Your task to perform on an android device: Go to ESPN.com Image 0: 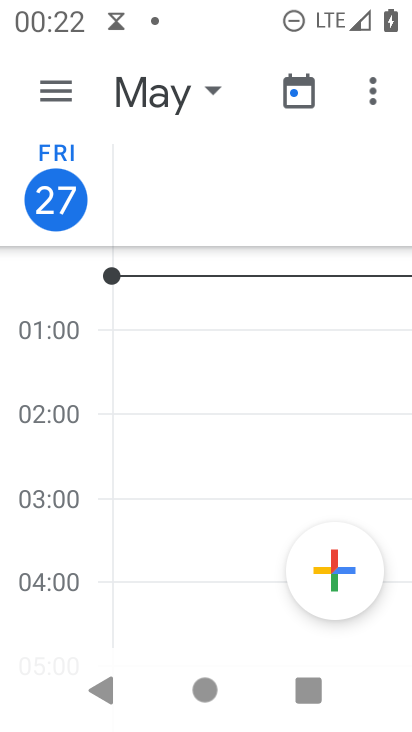
Step 0: press home button
Your task to perform on an android device: Go to ESPN.com Image 1: 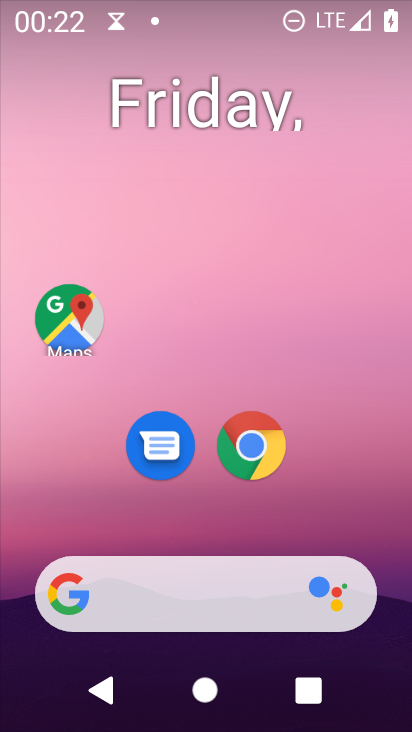
Step 1: click (253, 438)
Your task to perform on an android device: Go to ESPN.com Image 2: 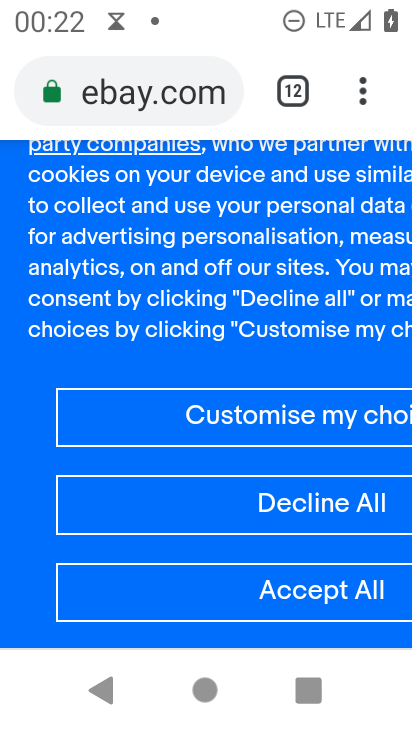
Step 2: click (365, 99)
Your task to perform on an android device: Go to ESPN.com Image 3: 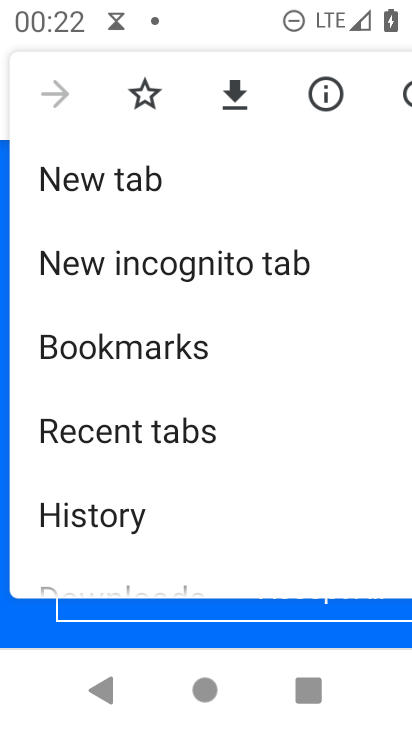
Step 3: click (103, 187)
Your task to perform on an android device: Go to ESPN.com Image 4: 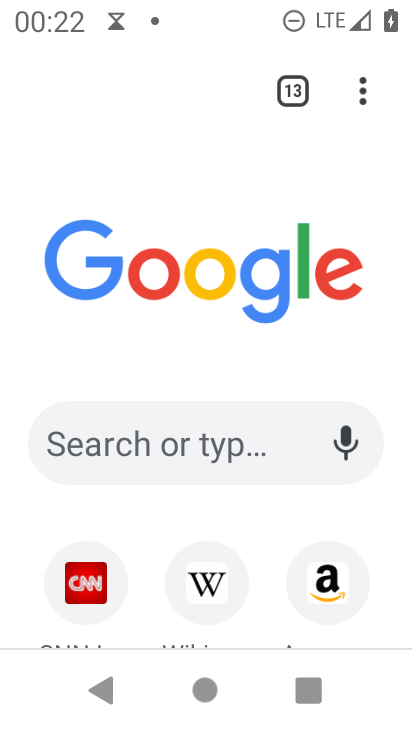
Step 4: drag from (163, 629) to (170, 426)
Your task to perform on an android device: Go to ESPN.com Image 5: 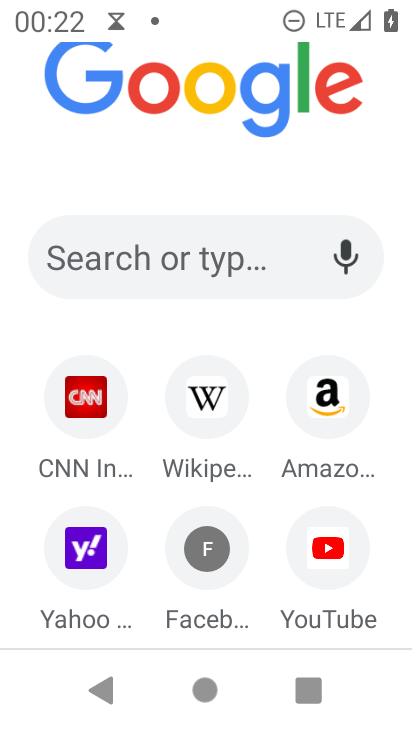
Step 5: click (203, 256)
Your task to perform on an android device: Go to ESPN.com Image 6: 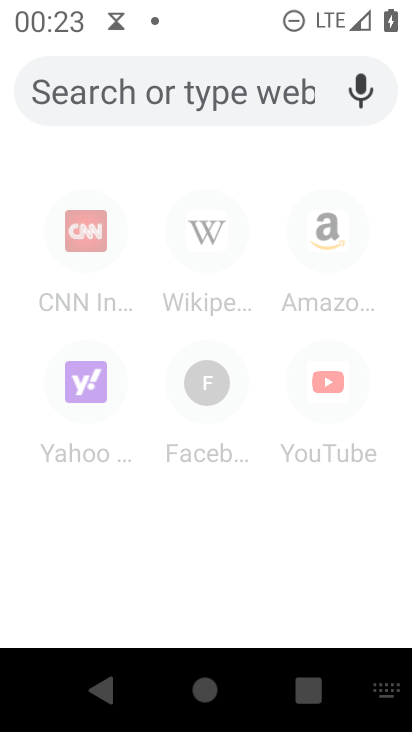
Step 6: type "ESPN.com"
Your task to perform on an android device: Go to ESPN.com Image 7: 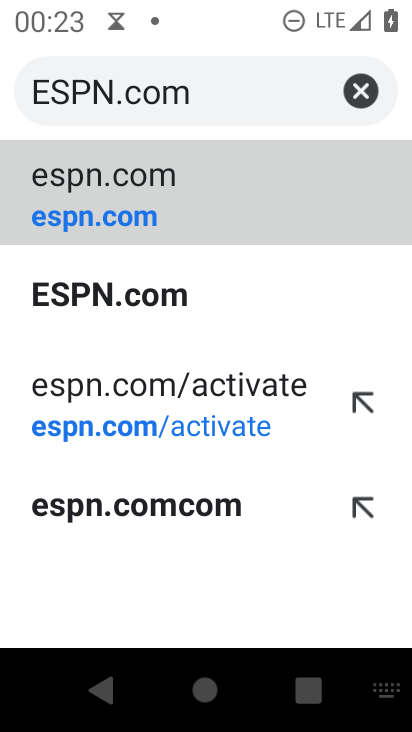
Step 7: click (139, 187)
Your task to perform on an android device: Go to ESPN.com Image 8: 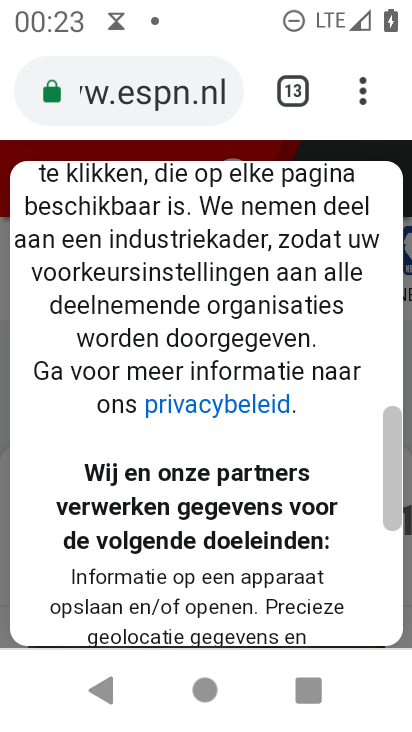
Step 8: drag from (331, 624) to (328, 201)
Your task to perform on an android device: Go to ESPN.com Image 9: 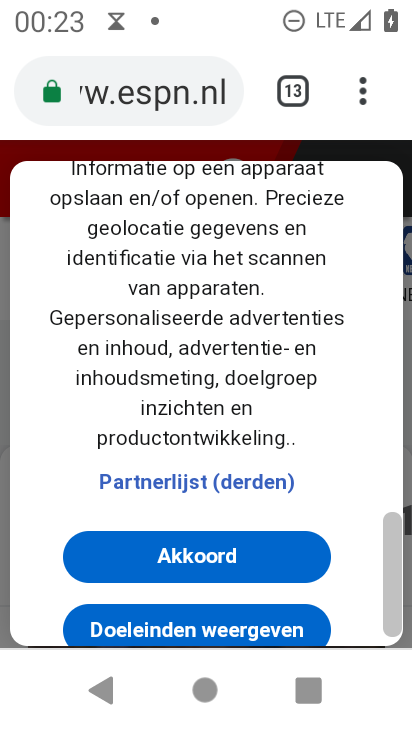
Step 9: click (186, 559)
Your task to perform on an android device: Go to ESPN.com Image 10: 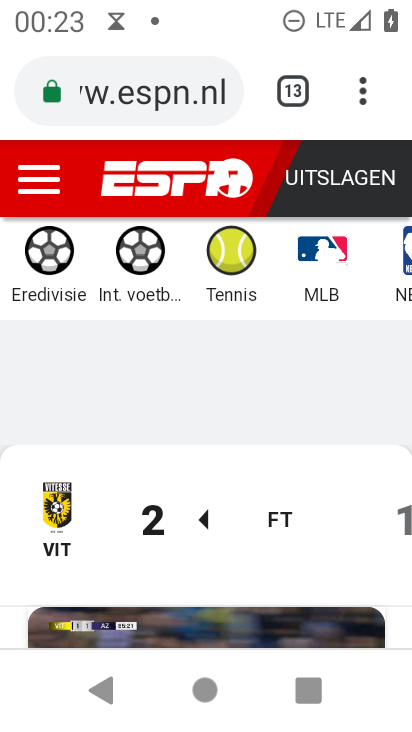
Step 10: task complete